Your task to perform on an android device: Go to Google Image 0: 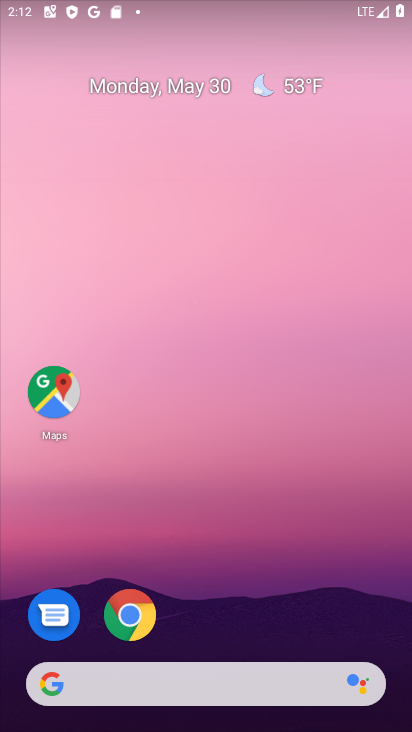
Step 0: drag from (304, 633) to (313, 159)
Your task to perform on an android device: Go to Google Image 1: 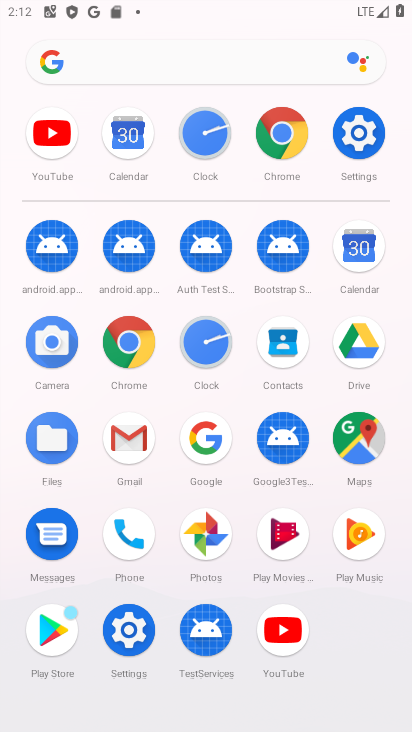
Step 1: click (198, 445)
Your task to perform on an android device: Go to Google Image 2: 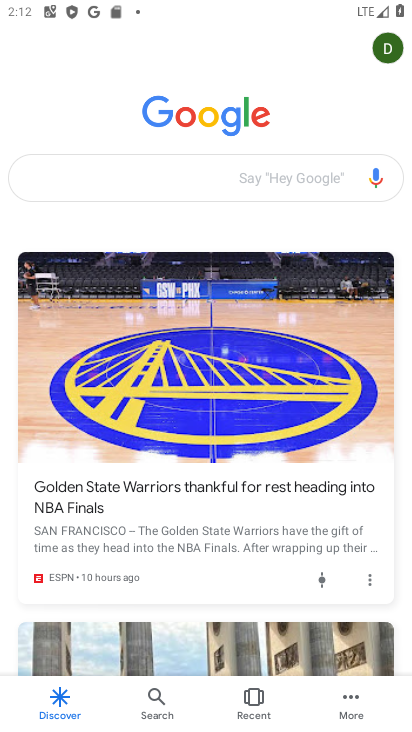
Step 2: task complete